Your task to perform on an android device: turn on javascript in the chrome app Image 0: 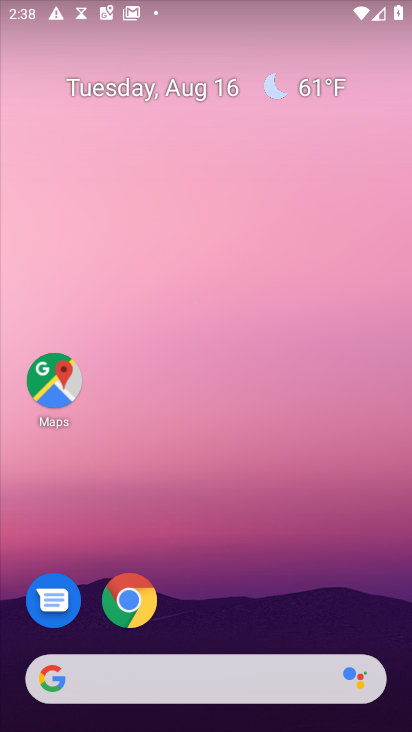
Step 0: click (132, 580)
Your task to perform on an android device: turn on javascript in the chrome app Image 1: 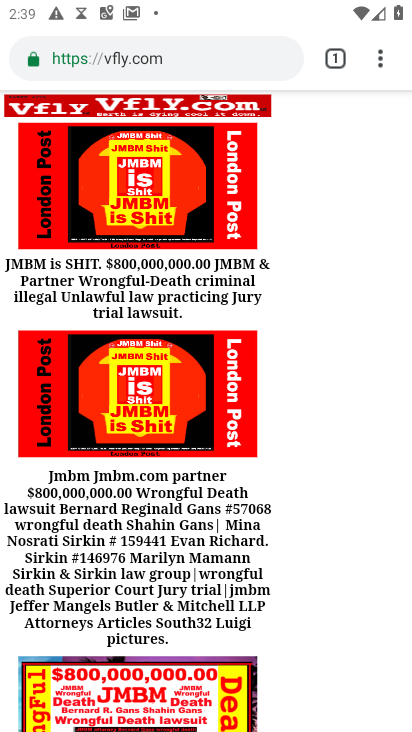
Step 1: drag from (383, 58) to (217, 630)
Your task to perform on an android device: turn on javascript in the chrome app Image 2: 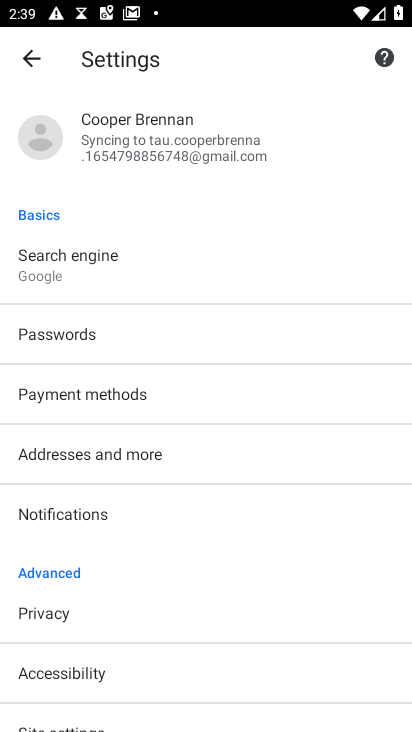
Step 2: drag from (187, 614) to (174, 173)
Your task to perform on an android device: turn on javascript in the chrome app Image 3: 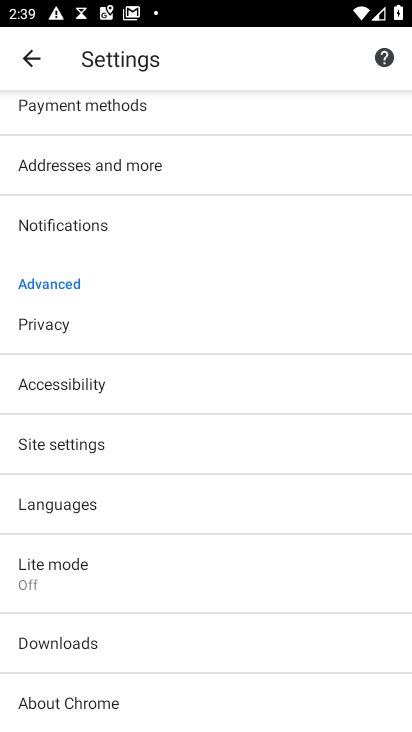
Step 3: click (125, 439)
Your task to perform on an android device: turn on javascript in the chrome app Image 4: 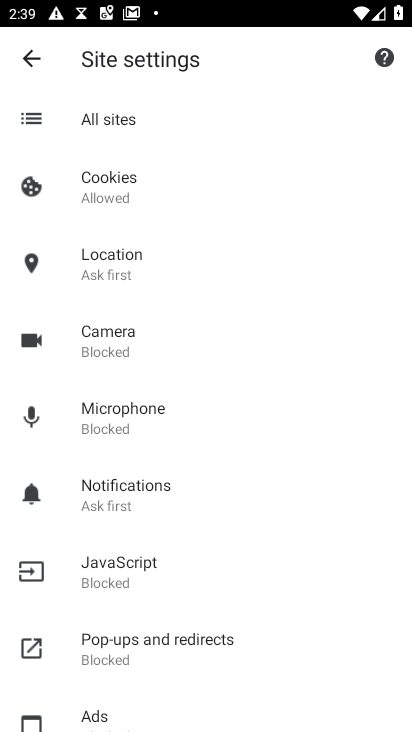
Step 4: click (138, 583)
Your task to perform on an android device: turn on javascript in the chrome app Image 5: 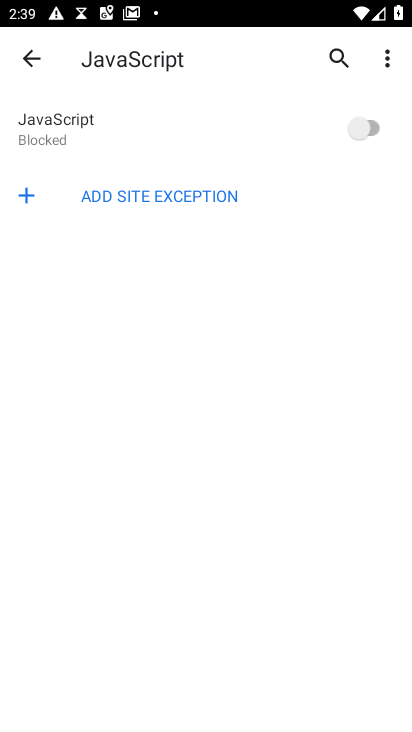
Step 5: click (362, 118)
Your task to perform on an android device: turn on javascript in the chrome app Image 6: 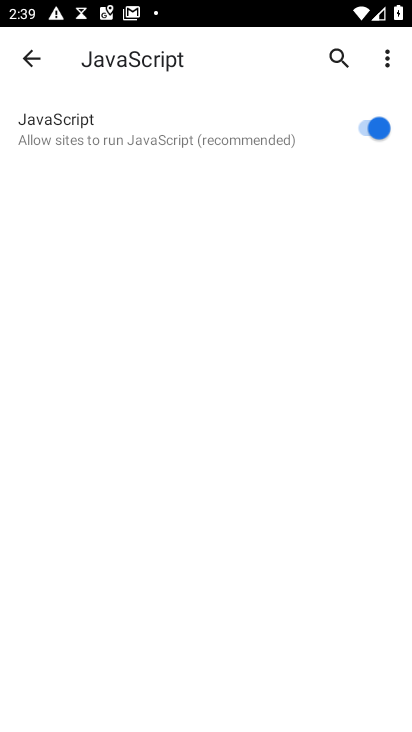
Step 6: task complete